Your task to perform on an android device: Search for "corsair k70" on target, select the first entry, and add it to the cart. Image 0: 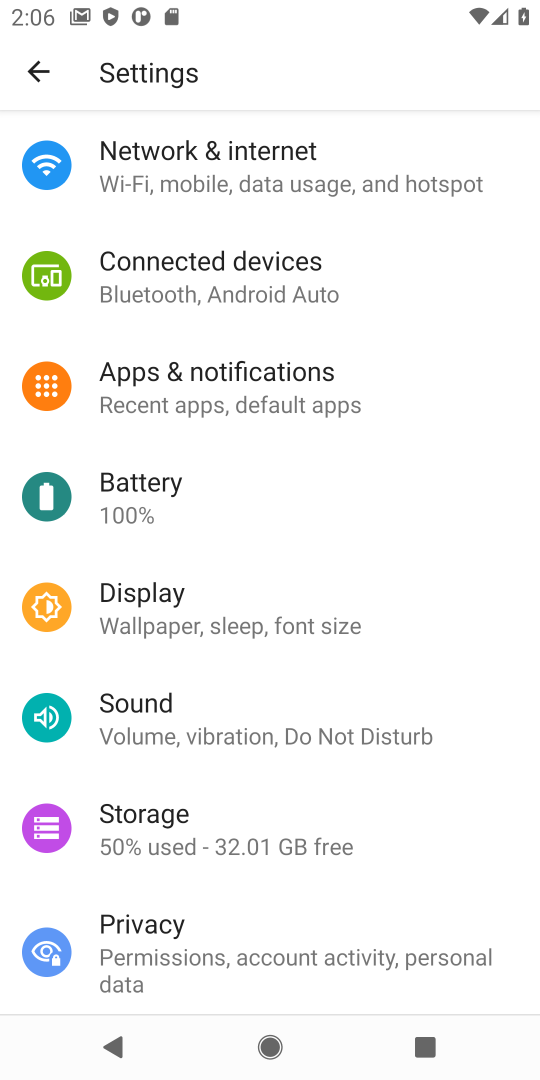
Step 0: click (44, 86)
Your task to perform on an android device: Search for "corsair k70" on target, select the first entry, and add it to the cart. Image 1: 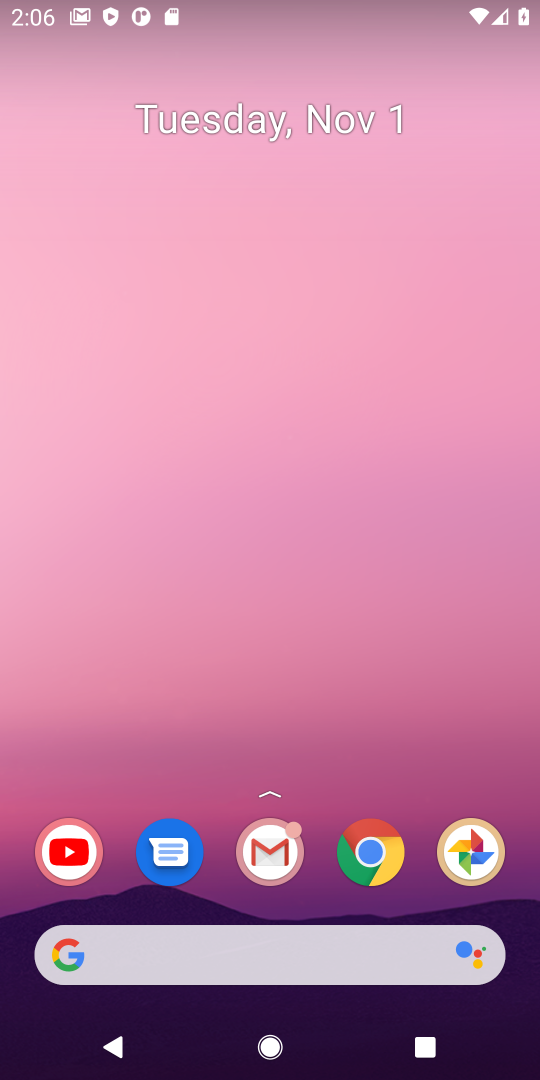
Step 1: click (156, 964)
Your task to perform on an android device: Search for "corsair k70" on target, select the first entry, and add it to the cart. Image 2: 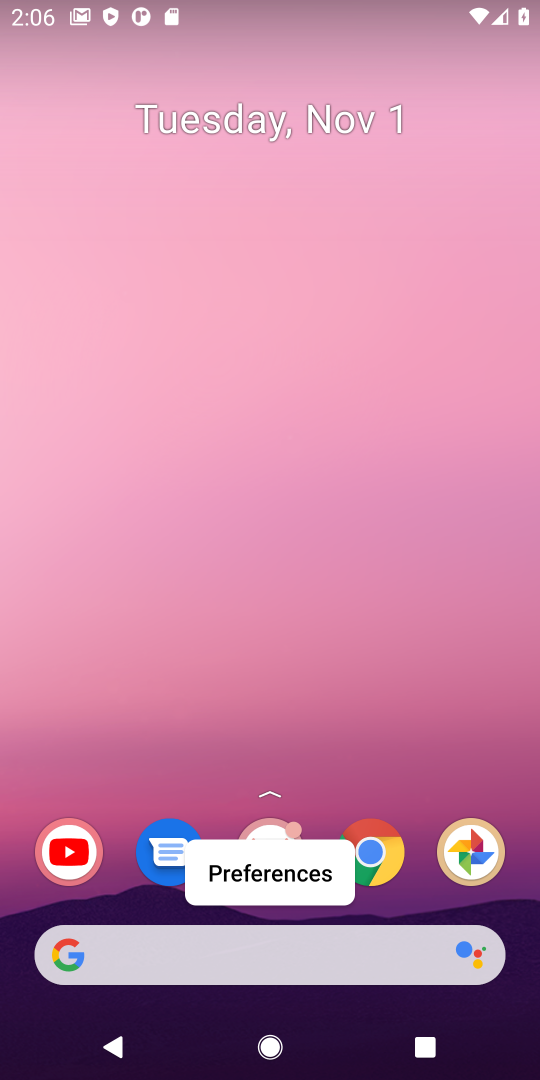
Step 2: click (156, 964)
Your task to perform on an android device: Search for "corsair k70" on target, select the first entry, and add it to the cart. Image 3: 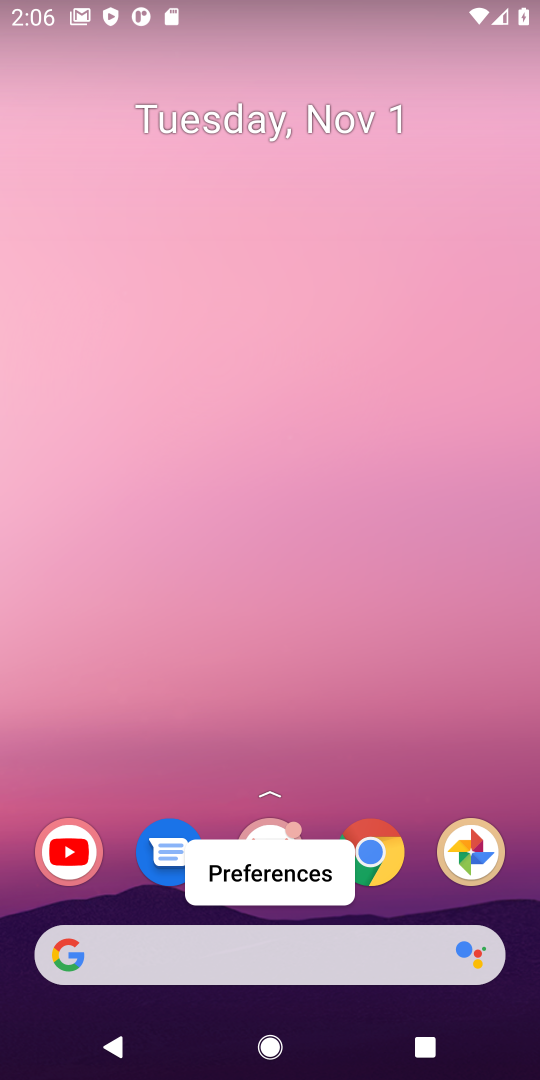
Step 3: click (159, 972)
Your task to perform on an android device: Search for "corsair k70" on target, select the first entry, and add it to the cart. Image 4: 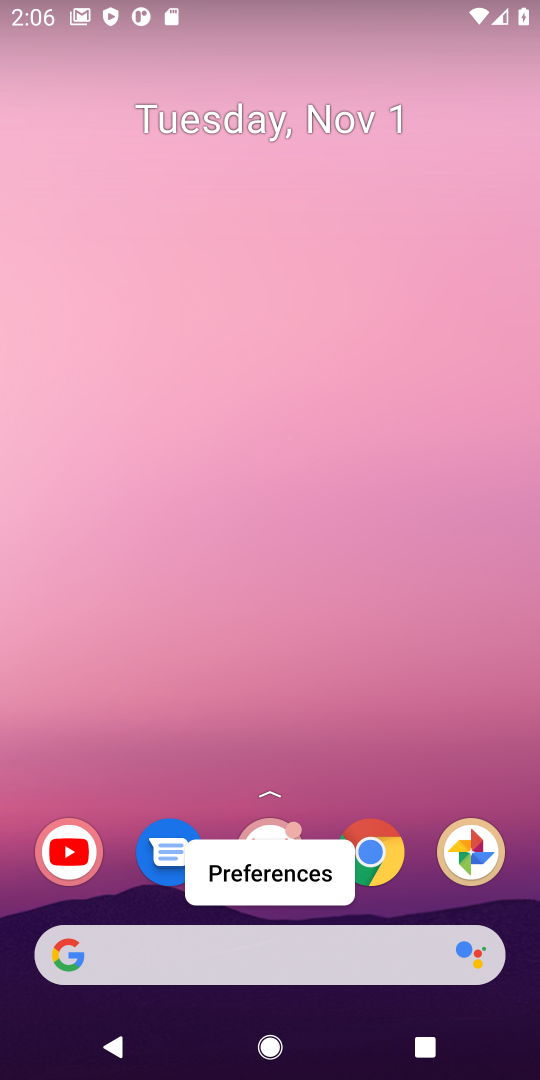
Step 4: click (162, 972)
Your task to perform on an android device: Search for "corsair k70" on target, select the first entry, and add it to the cart. Image 5: 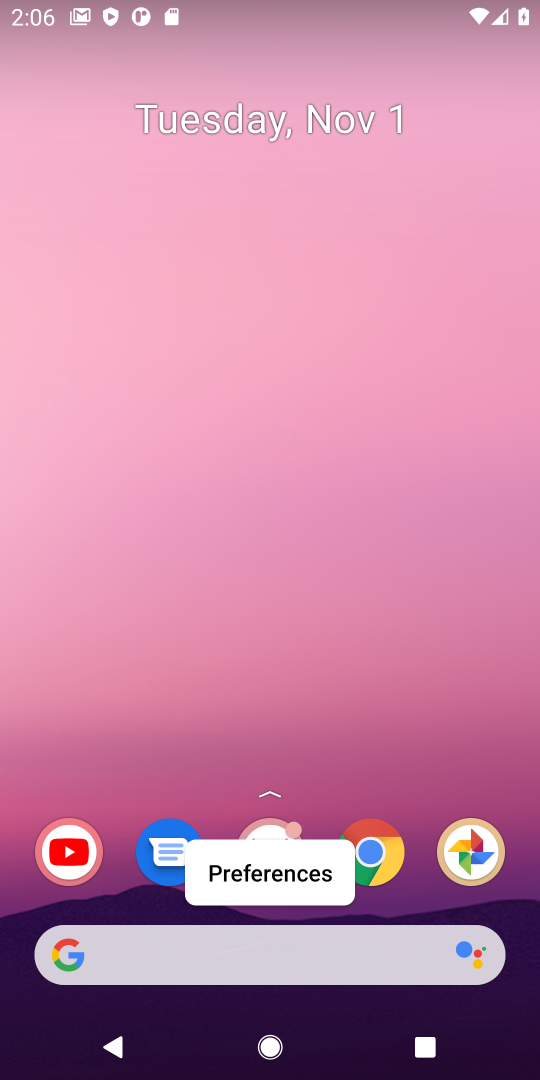
Step 5: click (167, 972)
Your task to perform on an android device: Search for "corsair k70" on target, select the first entry, and add it to the cart. Image 6: 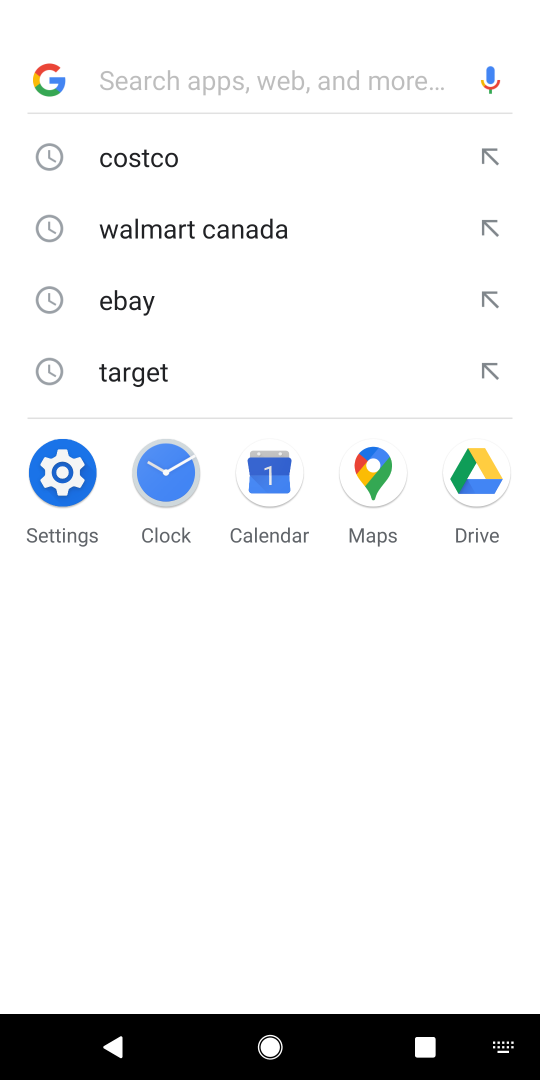
Step 6: click (206, 966)
Your task to perform on an android device: Search for "corsair k70" on target, select the first entry, and add it to the cart. Image 7: 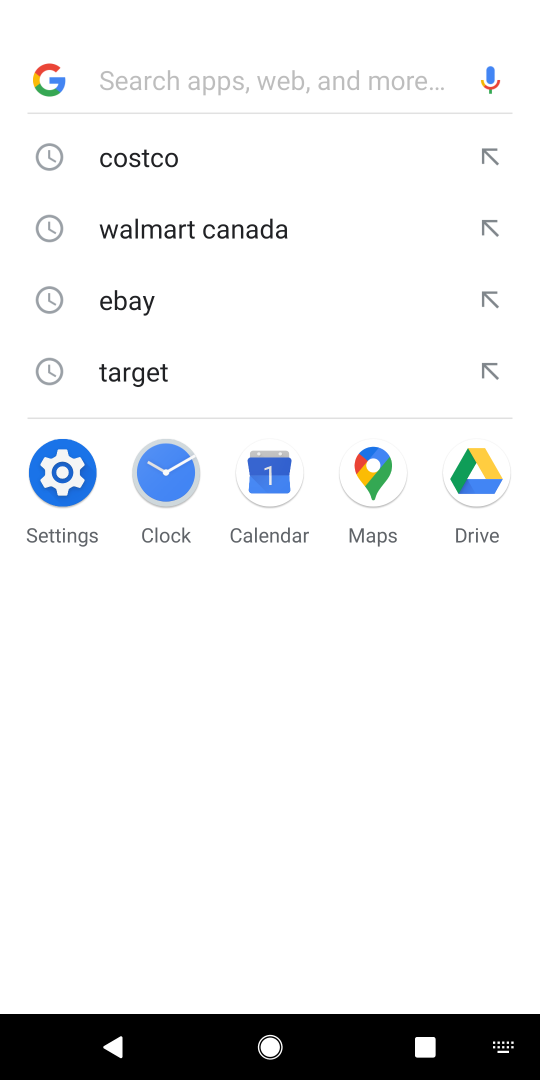
Step 7: click (143, 374)
Your task to perform on an android device: Search for "corsair k70" on target, select the first entry, and add it to the cart. Image 8: 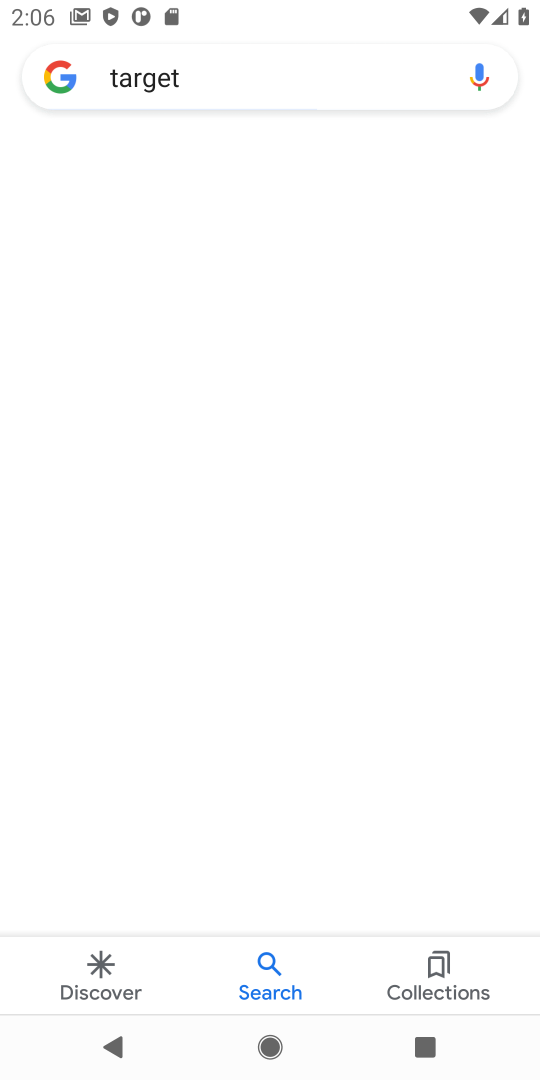
Step 8: click (143, 374)
Your task to perform on an android device: Search for "corsair k70" on target, select the first entry, and add it to the cart. Image 9: 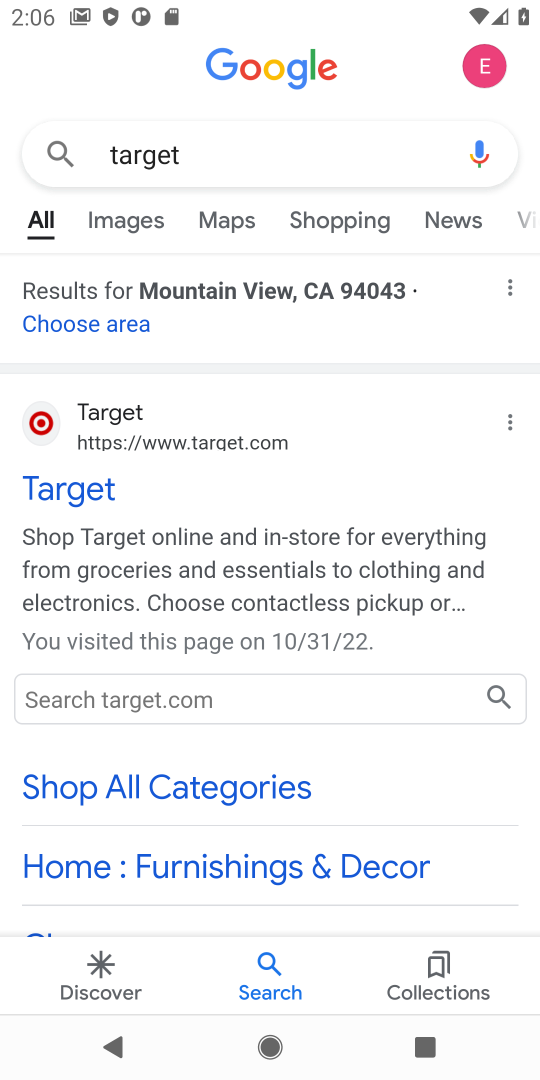
Step 9: click (108, 463)
Your task to perform on an android device: Search for "corsair k70" on target, select the first entry, and add it to the cart. Image 10: 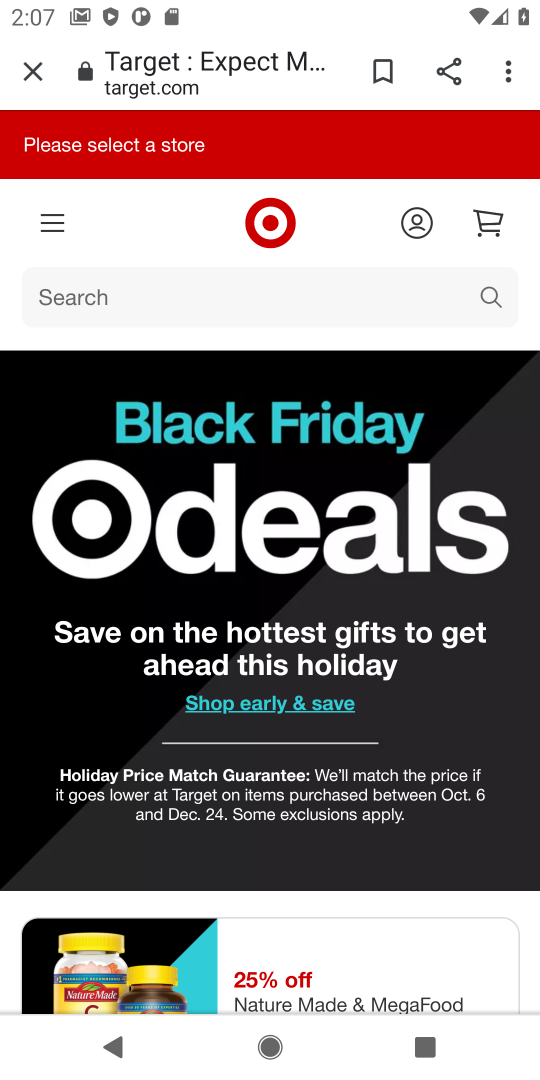
Step 10: drag from (276, 335) to (288, 279)
Your task to perform on an android device: Search for "corsair k70" on target, select the first entry, and add it to the cart. Image 11: 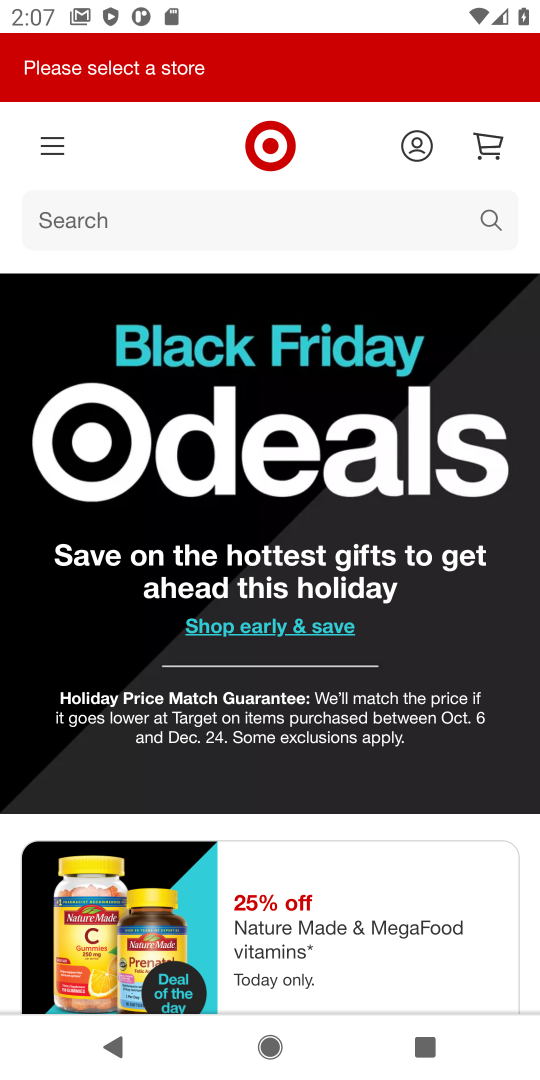
Step 11: click (225, 260)
Your task to perform on an android device: Search for "corsair k70" on target, select the first entry, and add it to the cart. Image 12: 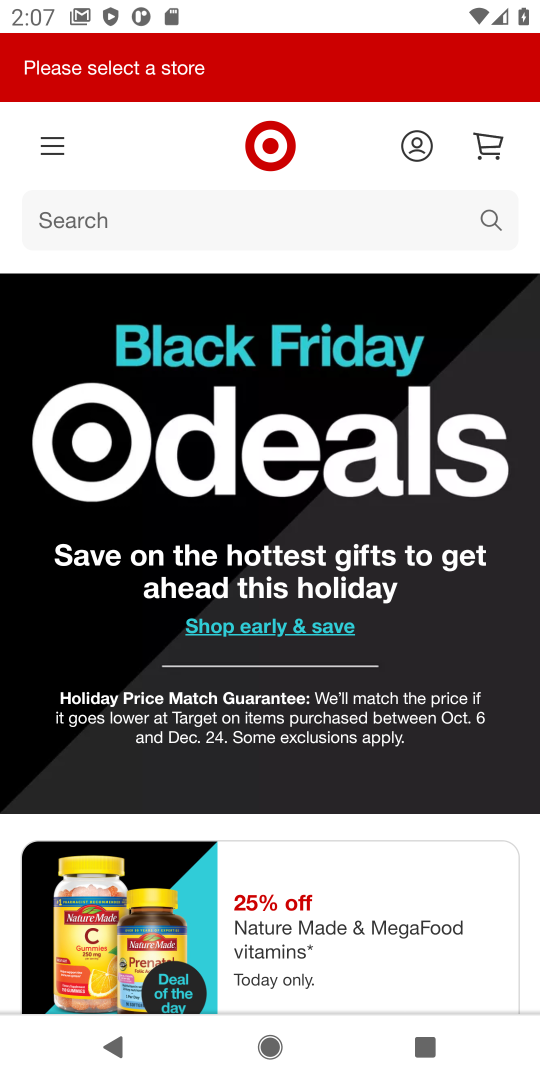
Step 12: click (397, 218)
Your task to perform on an android device: Search for "corsair k70" on target, select the first entry, and add it to the cart. Image 13: 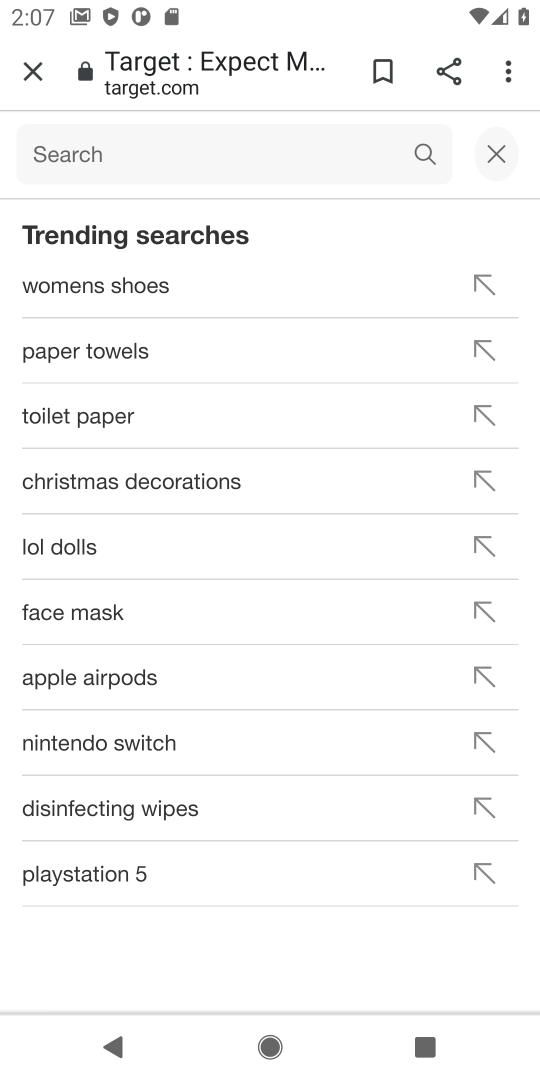
Step 13: click (122, 155)
Your task to perform on an android device: Search for "corsair k70" on target, select the first entry, and add it to the cart. Image 14: 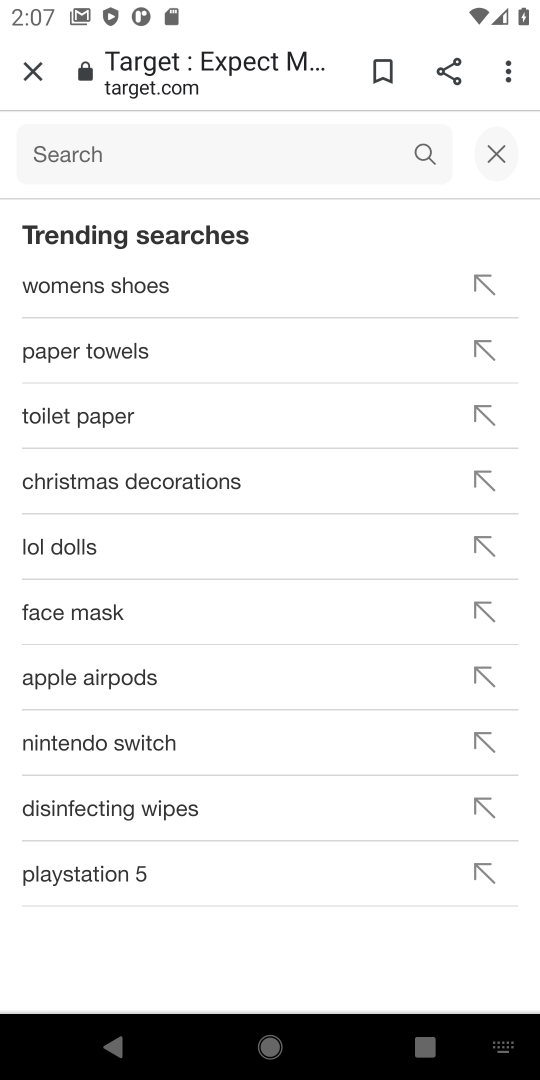
Step 14: type "corsair k70"
Your task to perform on an android device: Search for "corsair k70" on target, select the first entry, and add it to the cart. Image 15: 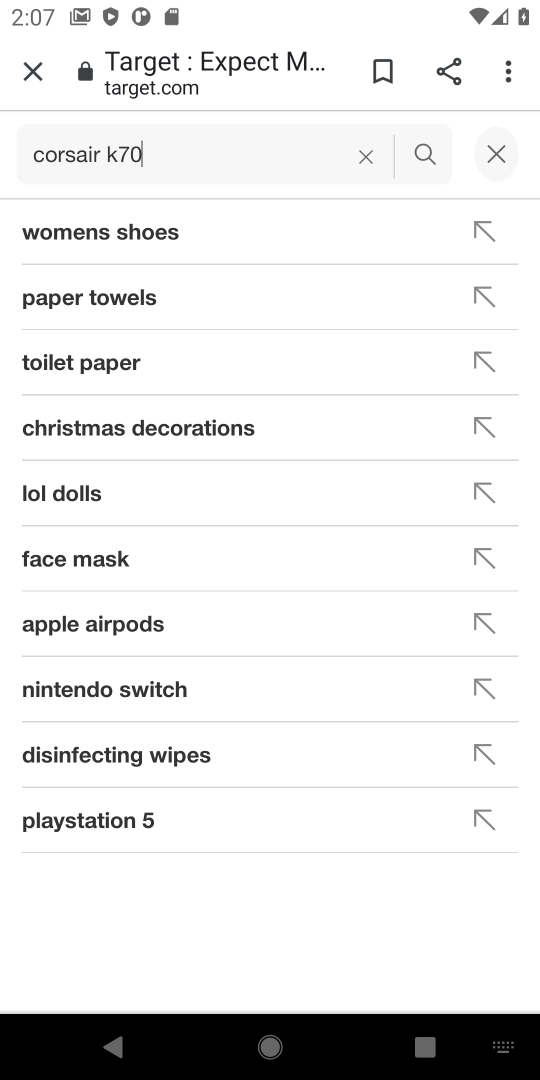
Step 15: type ""
Your task to perform on an android device: Search for "corsair k70" on target, select the first entry, and add it to the cart. Image 16: 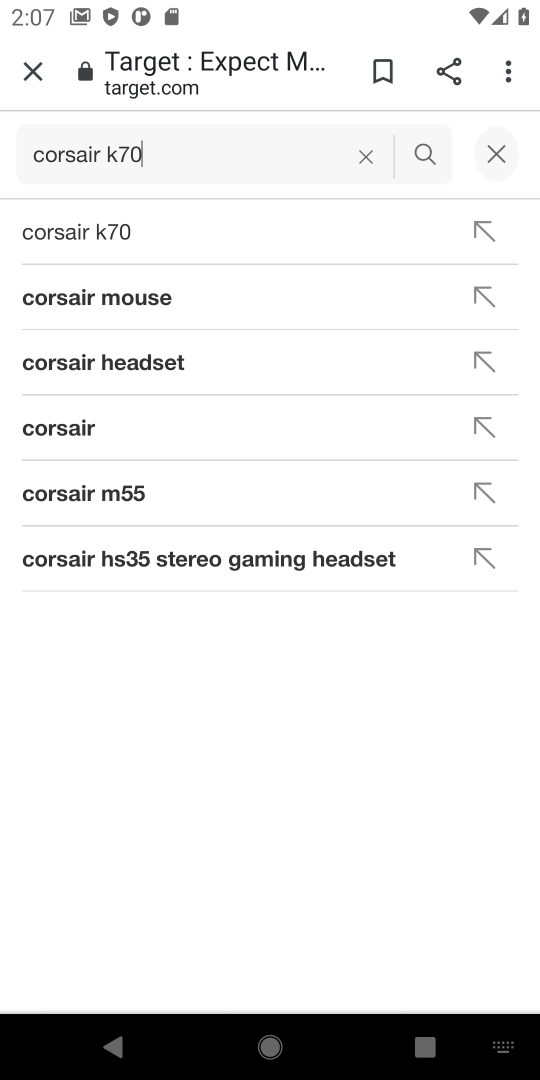
Step 16: press enter
Your task to perform on an android device: Search for "corsair k70" on target, select the first entry, and add it to the cart. Image 17: 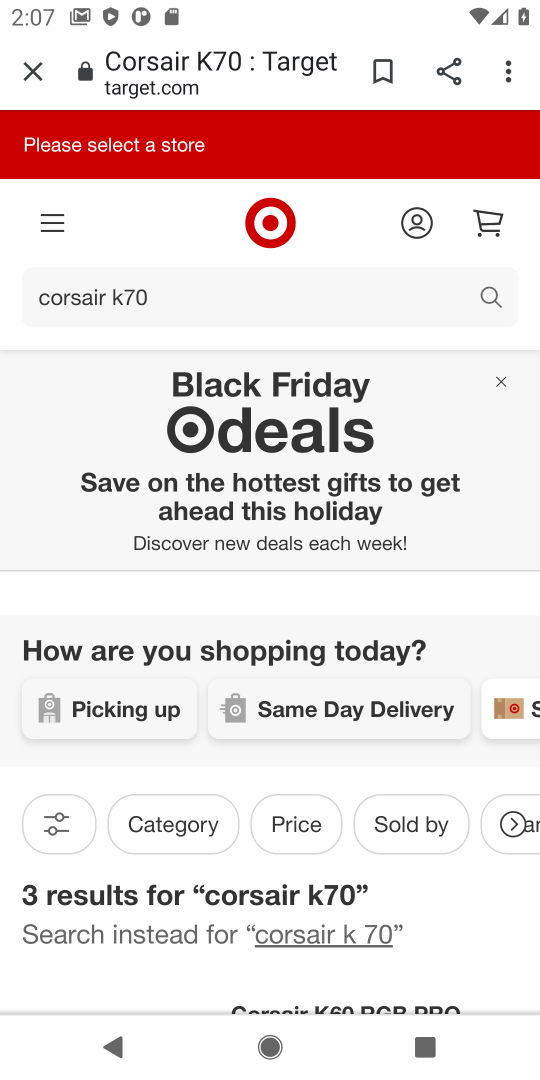
Step 17: click (64, 512)
Your task to perform on an android device: Search for "corsair k70" on target, select the first entry, and add it to the cart. Image 18: 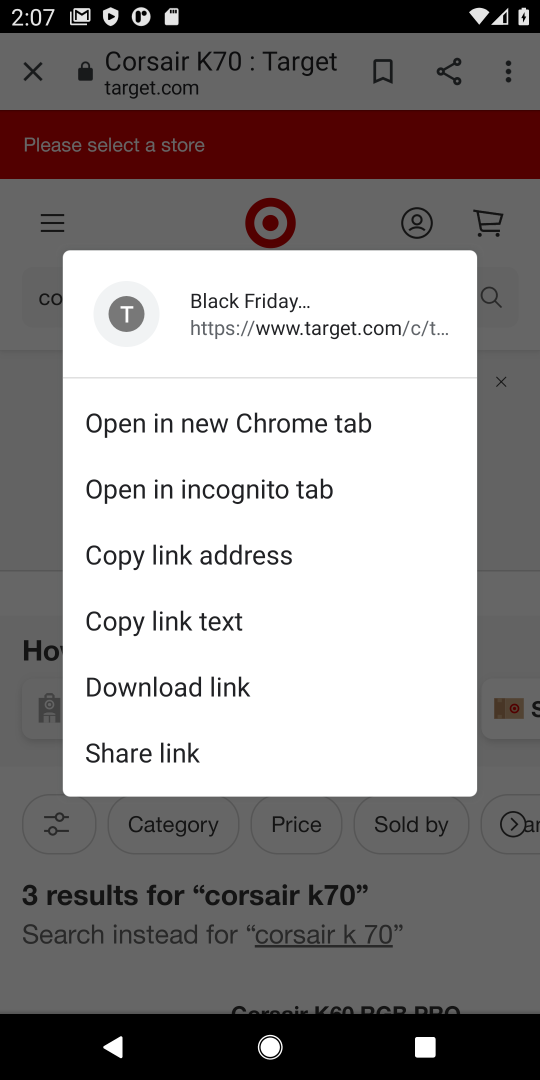
Step 18: click (29, 443)
Your task to perform on an android device: Search for "corsair k70" on target, select the first entry, and add it to the cart. Image 19: 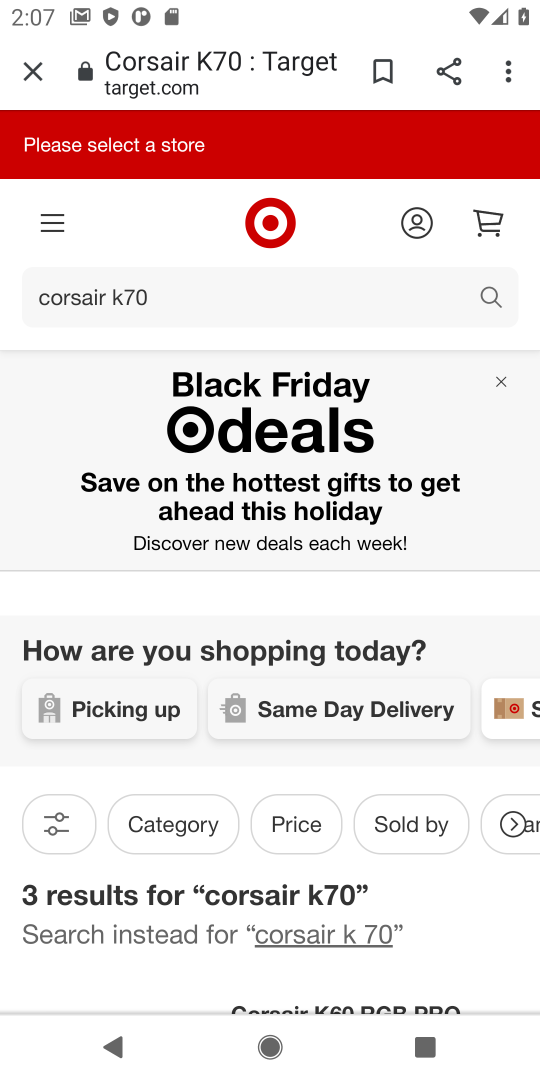
Step 19: click (481, 300)
Your task to perform on an android device: Search for "corsair k70" on target, select the first entry, and add it to the cart. Image 20: 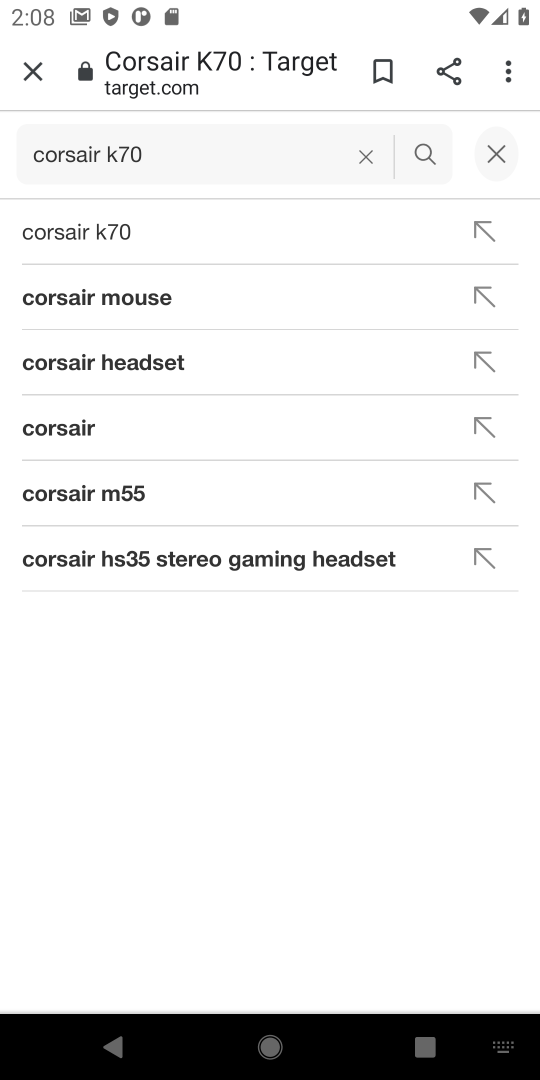
Step 20: press enter
Your task to perform on an android device: Search for "corsair k70" on target, select the first entry, and add it to the cart. Image 21: 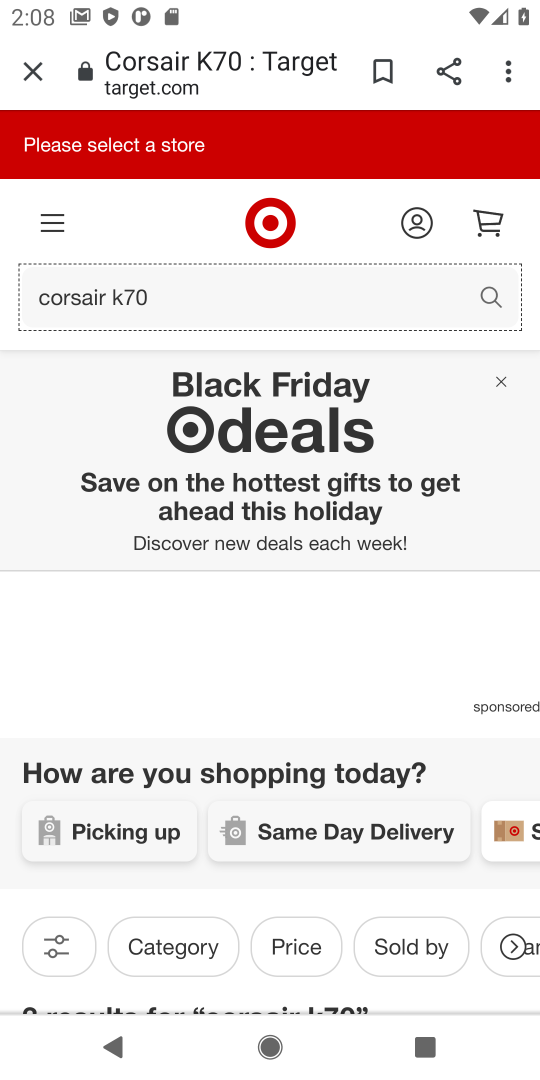
Step 21: drag from (92, 714) to (87, 247)
Your task to perform on an android device: Search for "corsair k70" on target, select the first entry, and add it to the cart. Image 22: 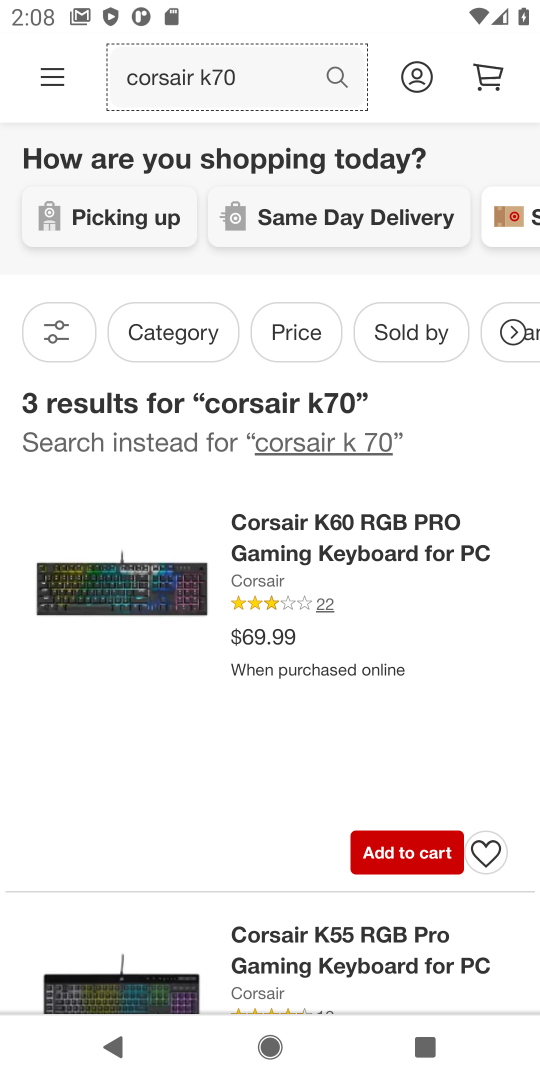
Step 22: drag from (200, 489) to (143, 207)
Your task to perform on an android device: Search for "corsair k70" on target, select the first entry, and add it to the cart. Image 23: 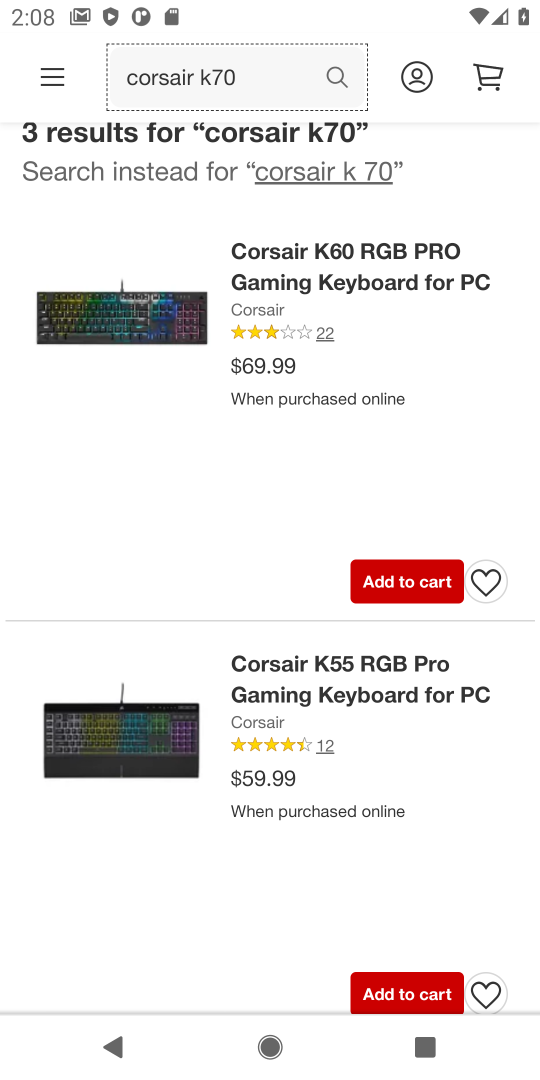
Step 23: click (291, 281)
Your task to perform on an android device: Search for "corsair k70" on target, select the first entry, and add it to the cart. Image 24: 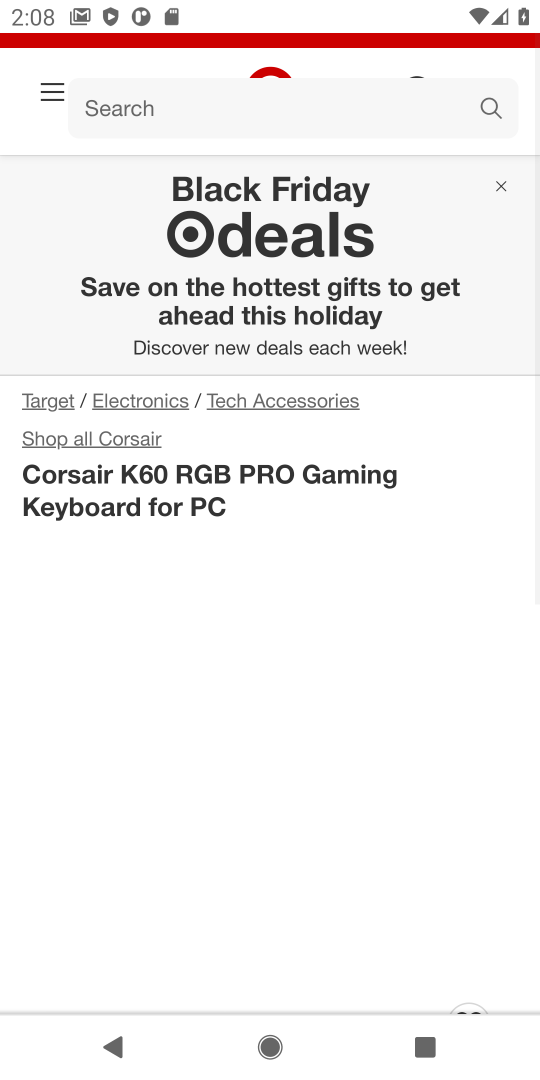
Step 24: click (418, 582)
Your task to perform on an android device: Search for "corsair k70" on target, select the first entry, and add it to the cart. Image 25: 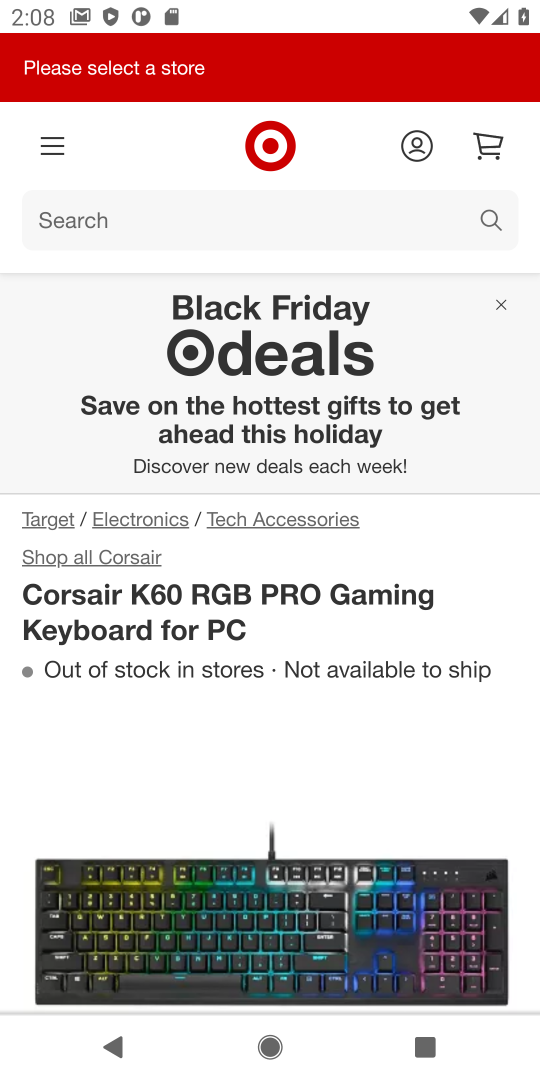
Step 25: drag from (358, 757) to (322, 352)
Your task to perform on an android device: Search for "corsair k70" on target, select the first entry, and add it to the cart. Image 26: 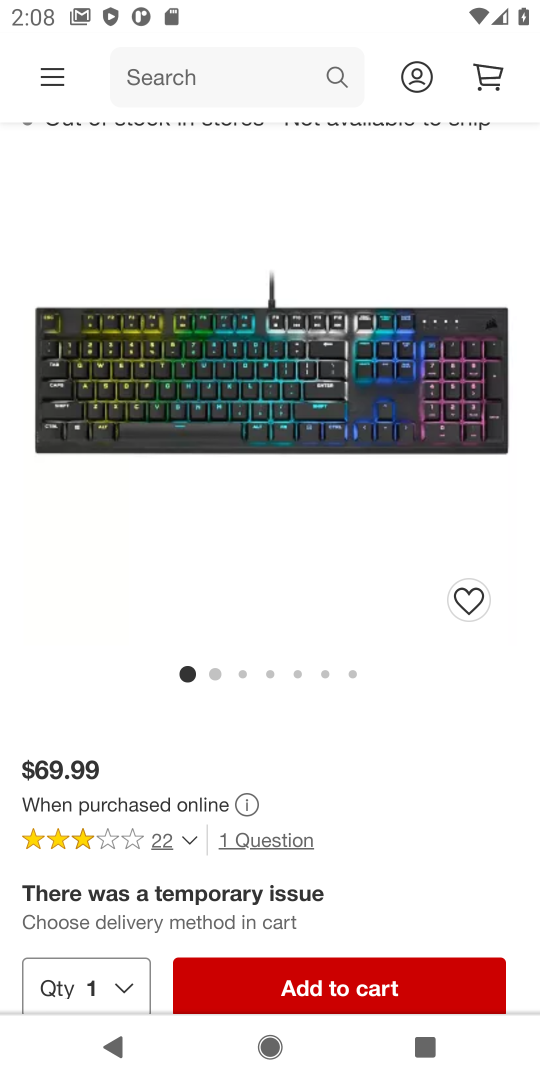
Step 26: drag from (146, 771) to (154, 648)
Your task to perform on an android device: Search for "corsair k70" on target, select the first entry, and add it to the cart. Image 27: 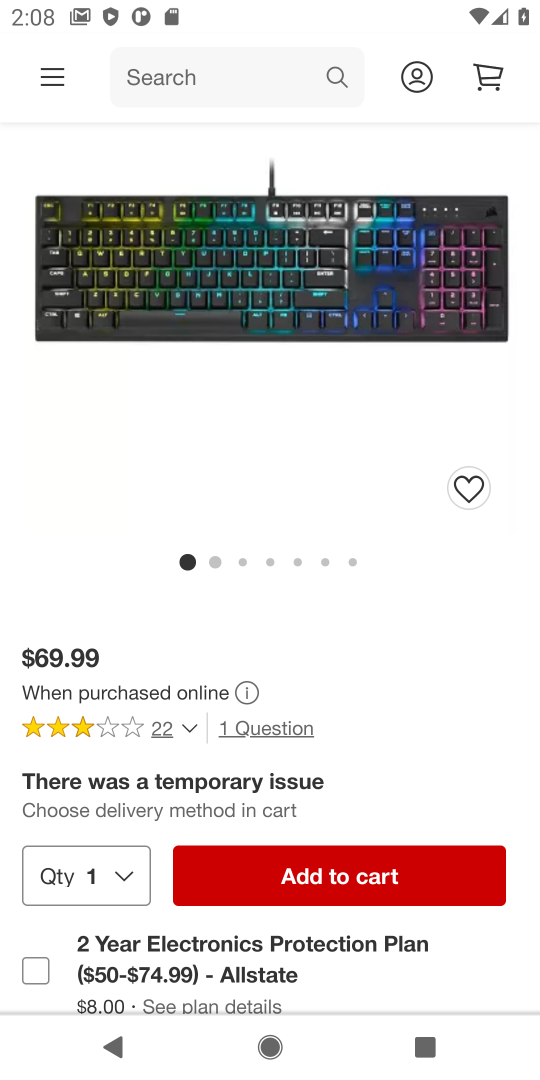
Step 27: click (291, 881)
Your task to perform on an android device: Search for "corsair k70" on target, select the first entry, and add it to the cart. Image 28: 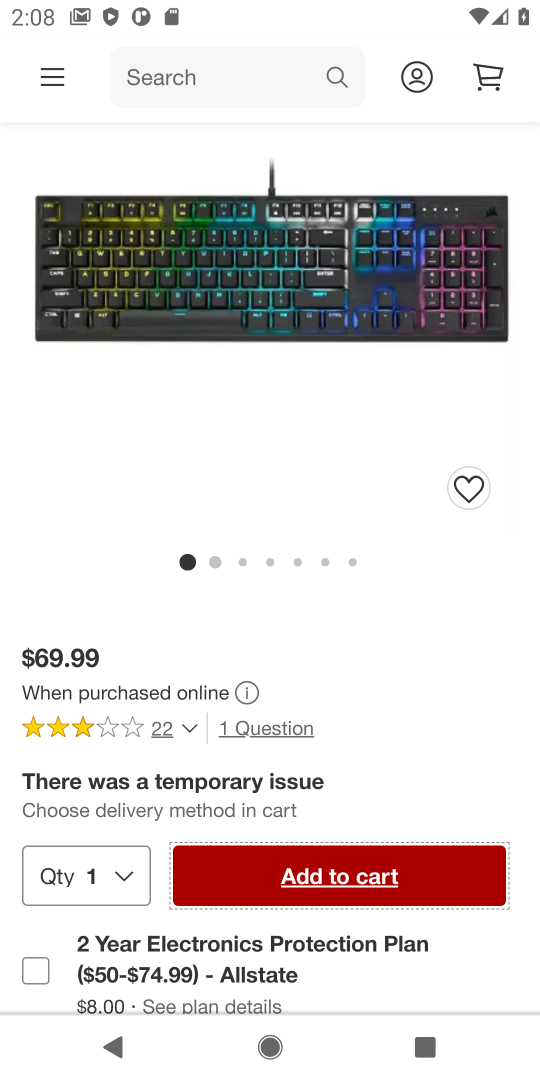
Step 28: click (286, 873)
Your task to perform on an android device: Search for "corsair k70" on target, select the first entry, and add it to the cart. Image 29: 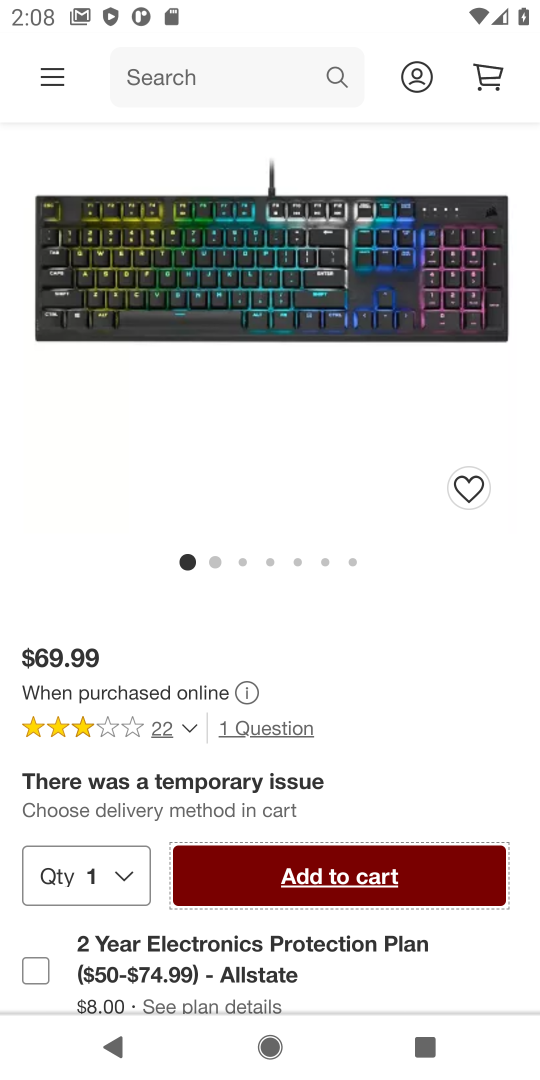
Step 29: click (297, 873)
Your task to perform on an android device: Search for "corsair k70" on target, select the first entry, and add it to the cart. Image 30: 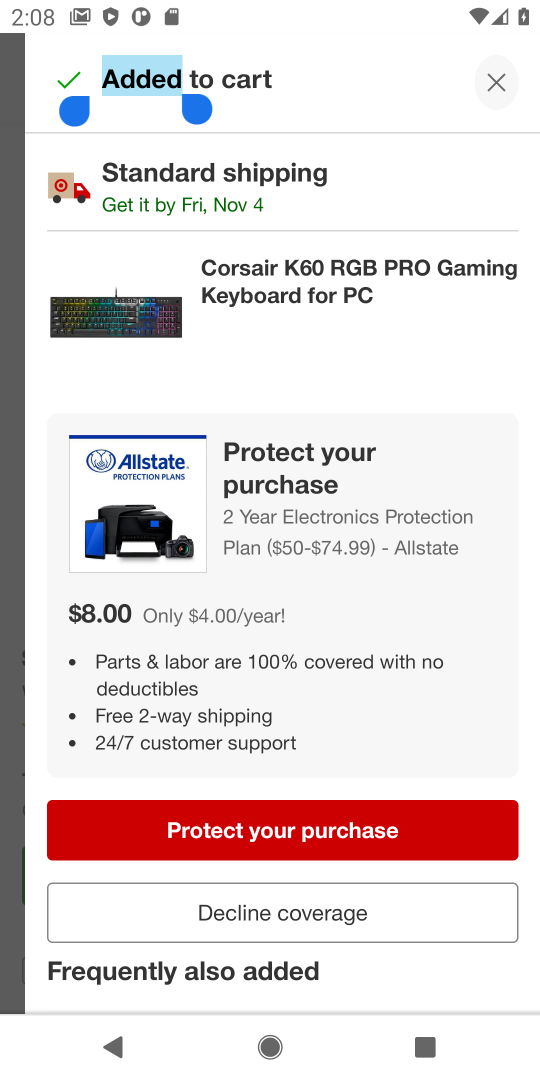
Step 30: click (494, 88)
Your task to perform on an android device: Search for "corsair k70" on target, select the first entry, and add it to the cart. Image 31: 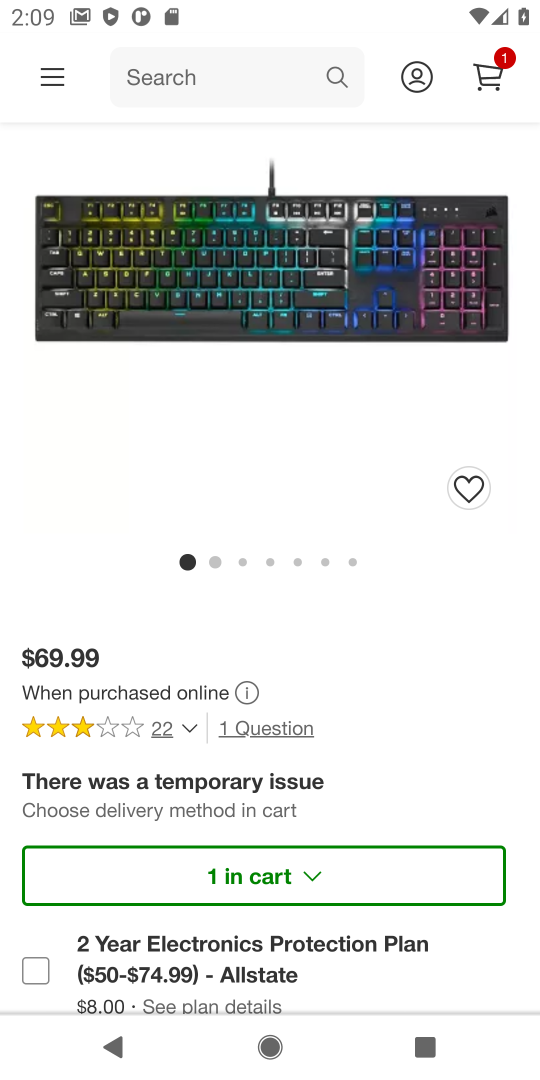
Step 31: task complete